Your task to perform on an android device: Clear the cart on walmart.com. Add lg ultragear to the cart on walmart.com, then select checkout. Image 0: 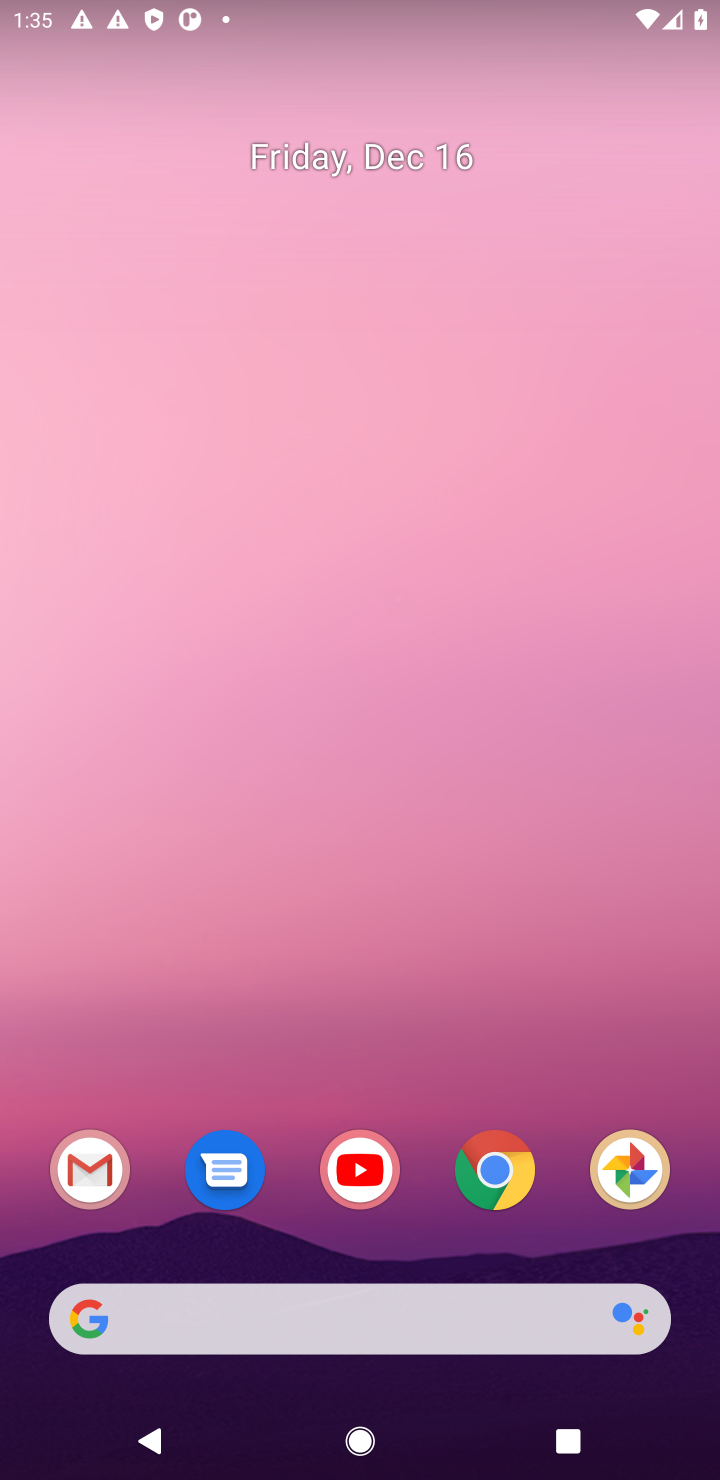
Step 0: click (507, 1173)
Your task to perform on an android device: Clear the cart on walmart.com. Add lg ultragear to the cart on walmart.com, then select checkout. Image 1: 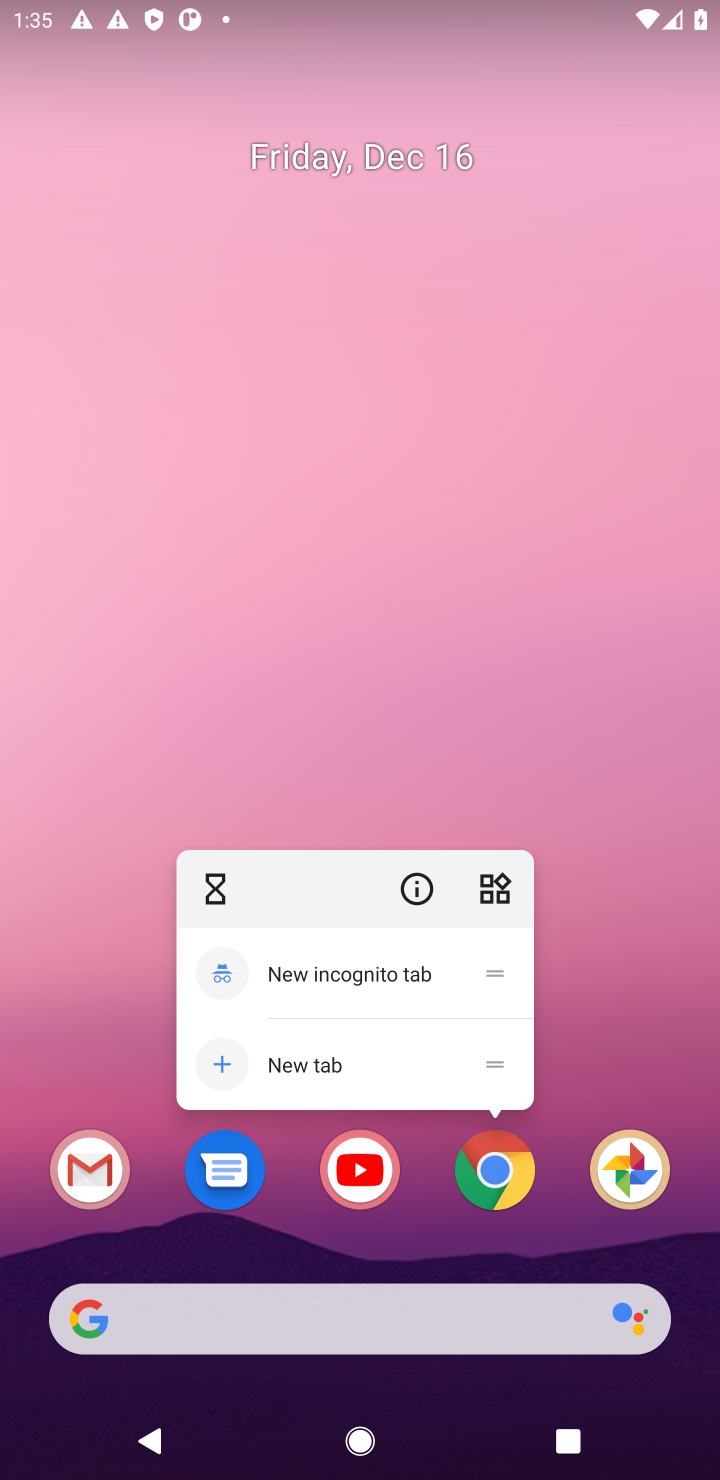
Step 1: click (507, 1173)
Your task to perform on an android device: Clear the cart on walmart.com. Add lg ultragear to the cart on walmart.com, then select checkout. Image 2: 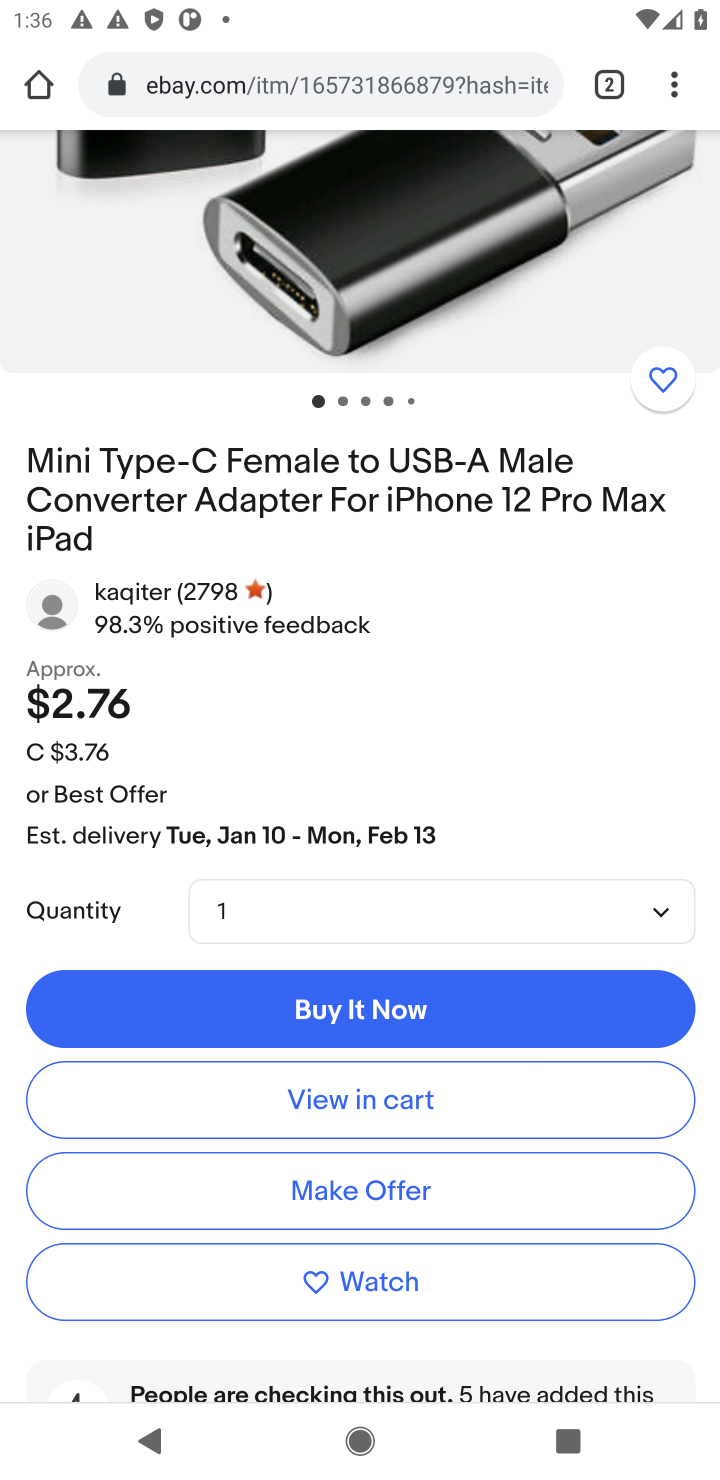
Step 2: click (283, 75)
Your task to perform on an android device: Clear the cart on walmart.com. Add lg ultragear to the cart on walmart.com, then select checkout. Image 3: 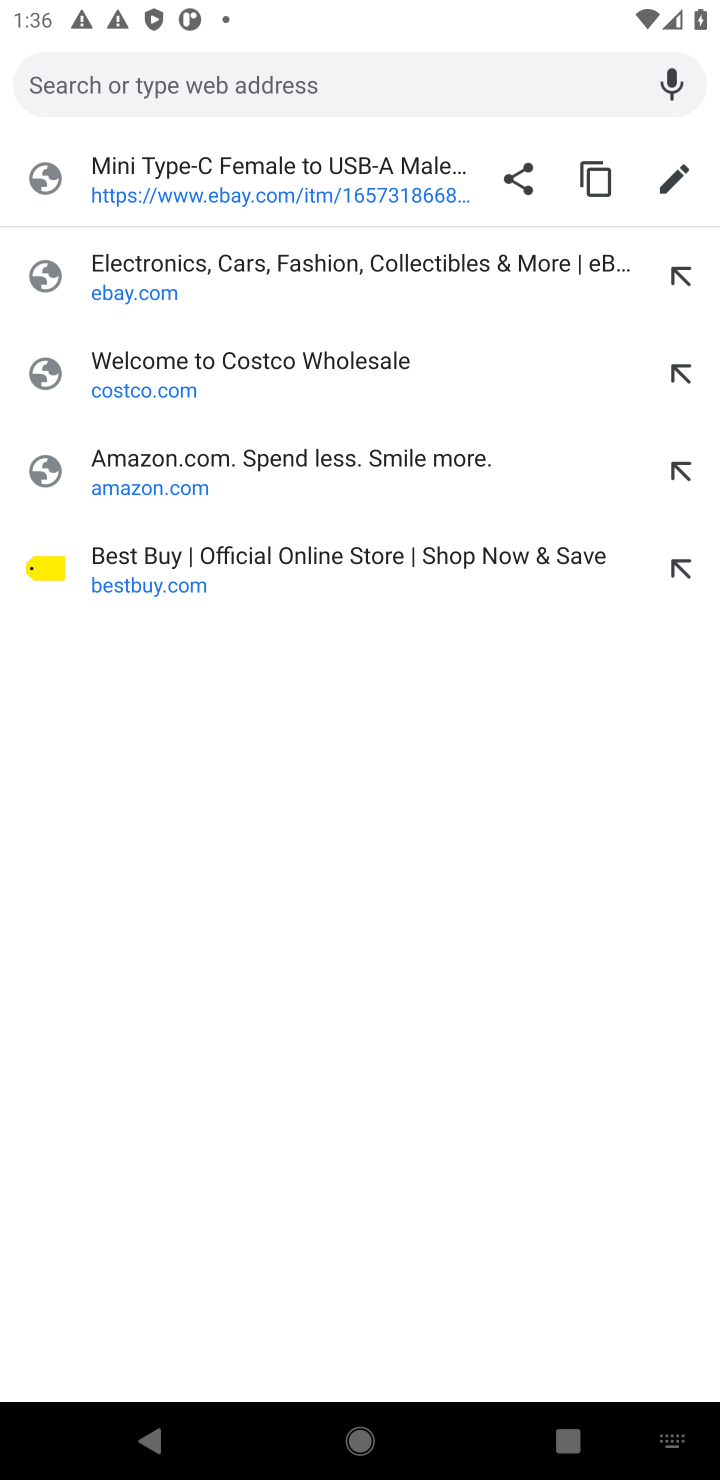
Step 3: type "walmart.com"
Your task to perform on an android device: Clear the cart on walmart.com. Add lg ultragear to the cart on walmart.com, then select checkout. Image 4: 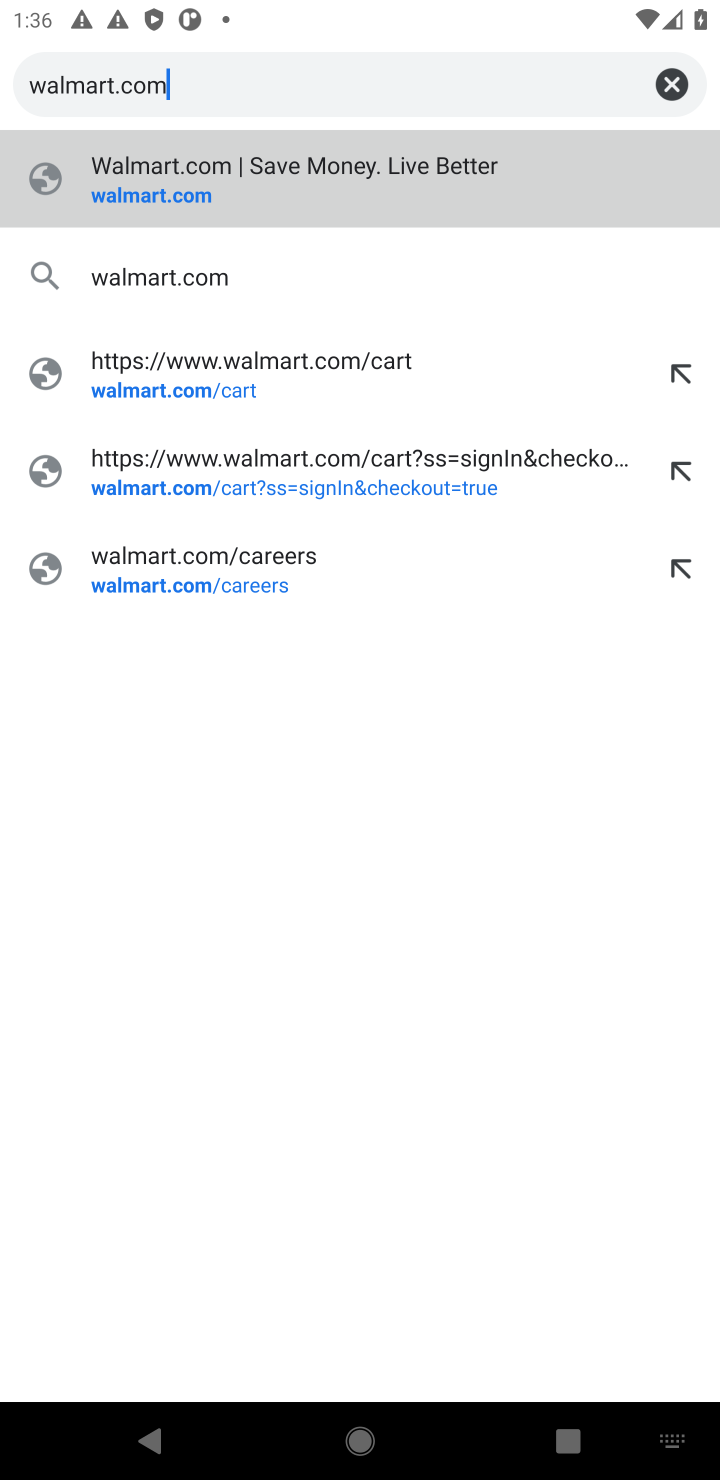
Step 4: click (140, 180)
Your task to perform on an android device: Clear the cart on walmart.com. Add lg ultragear to the cart on walmart.com, then select checkout. Image 5: 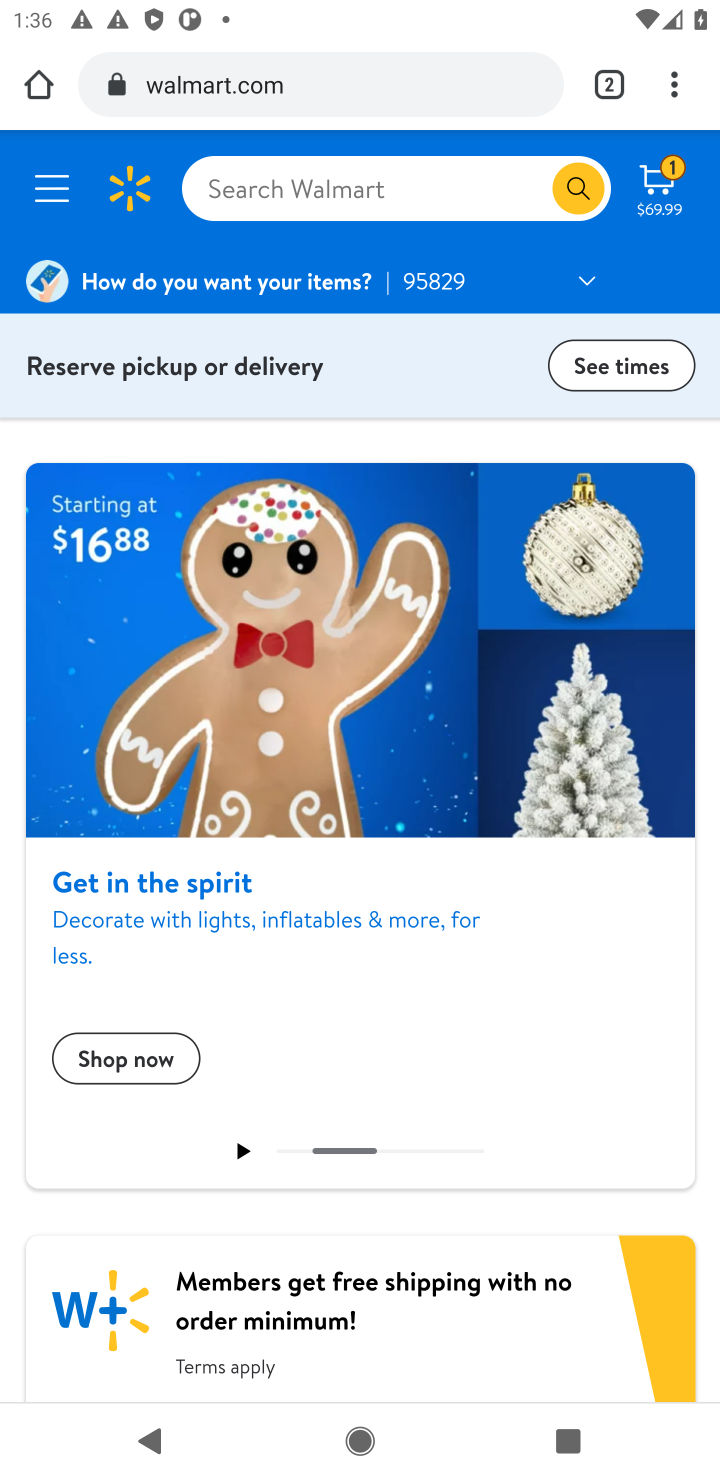
Step 5: click (651, 198)
Your task to perform on an android device: Clear the cart on walmart.com. Add lg ultragear to the cart on walmart.com, then select checkout. Image 6: 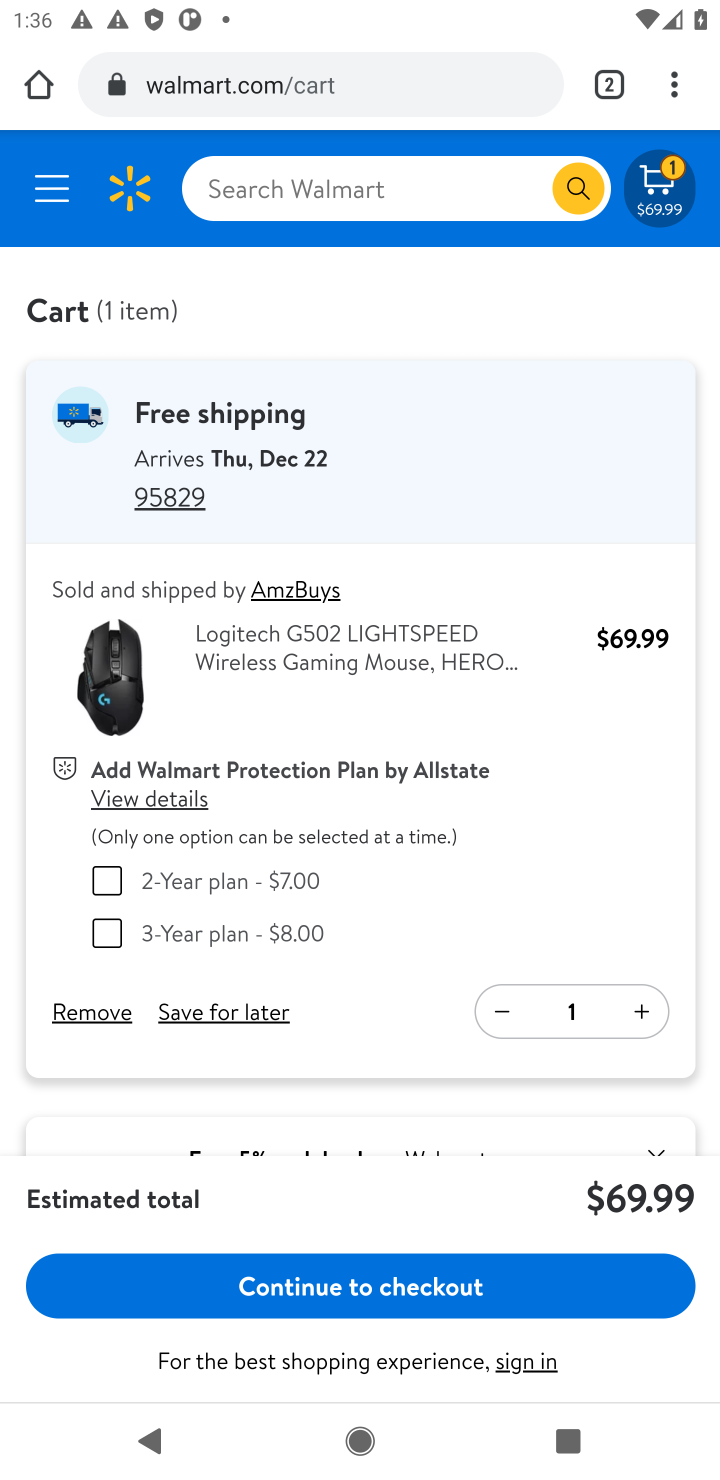
Step 6: click (79, 1014)
Your task to perform on an android device: Clear the cart on walmart.com. Add lg ultragear to the cart on walmart.com, then select checkout. Image 7: 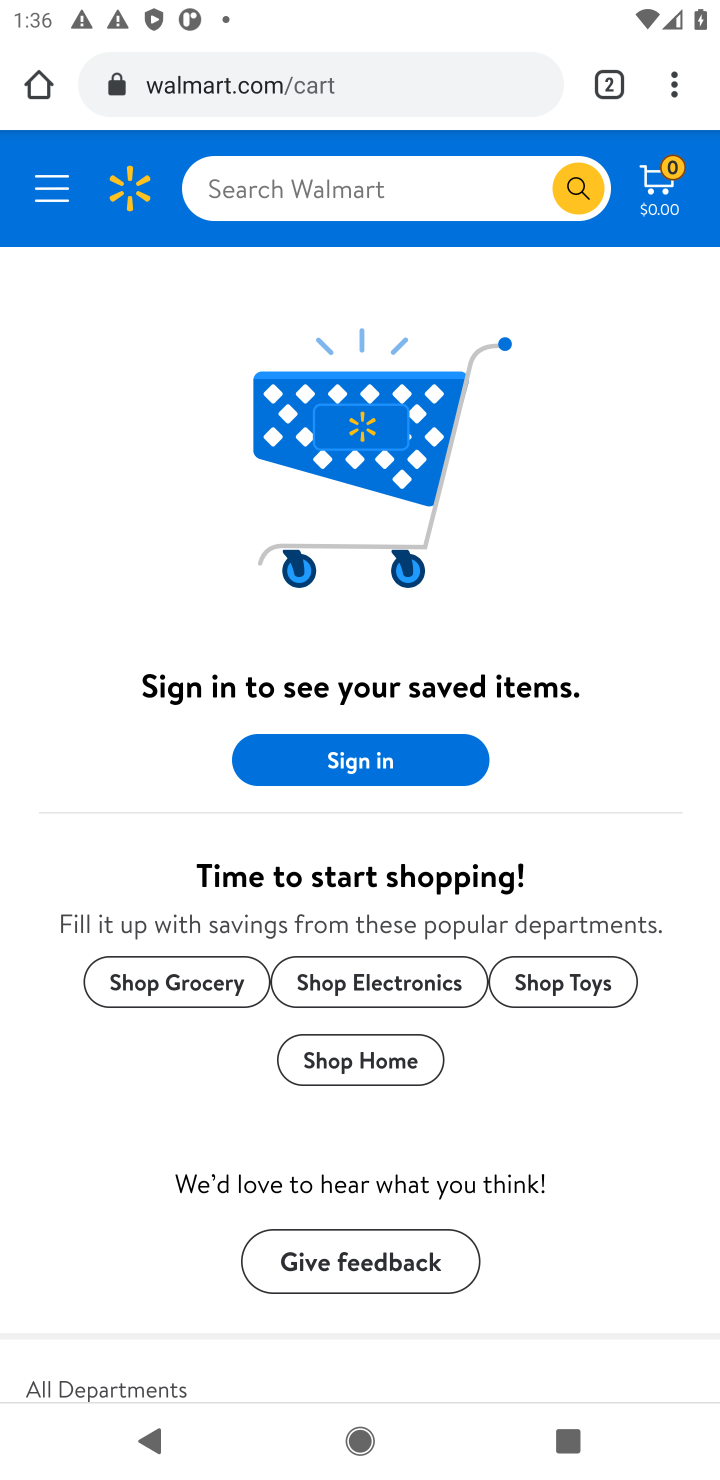
Step 7: click (222, 186)
Your task to perform on an android device: Clear the cart on walmart.com. Add lg ultragear to the cart on walmart.com, then select checkout. Image 8: 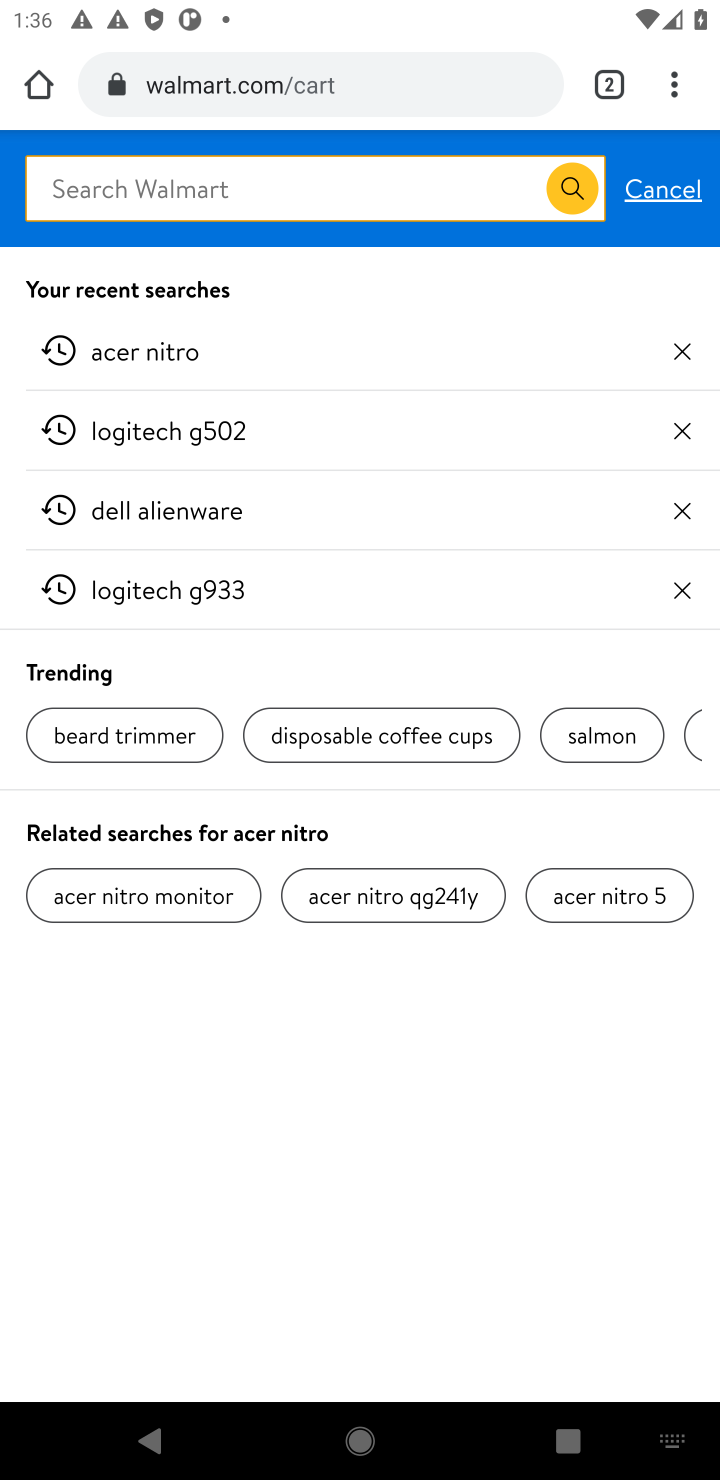
Step 8: type " lg ultragear "
Your task to perform on an android device: Clear the cart on walmart.com. Add lg ultragear to the cart on walmart.com, then select checkout. Image 9: 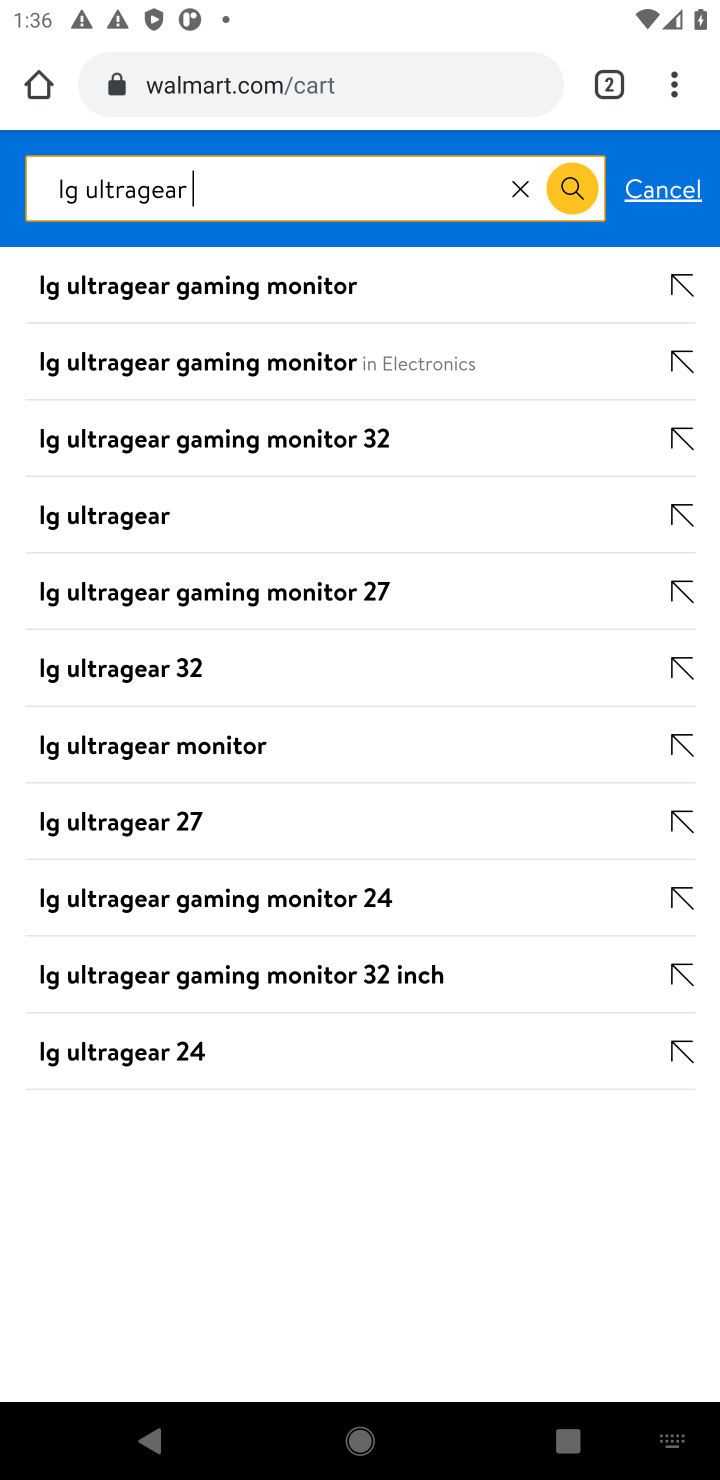
Step 9: click (79, 521)
Your task to perform on an android device: Clear the cart on walmart.com. Add lg ultragear to the cart on walmart.com, then select checkout. Image 10: 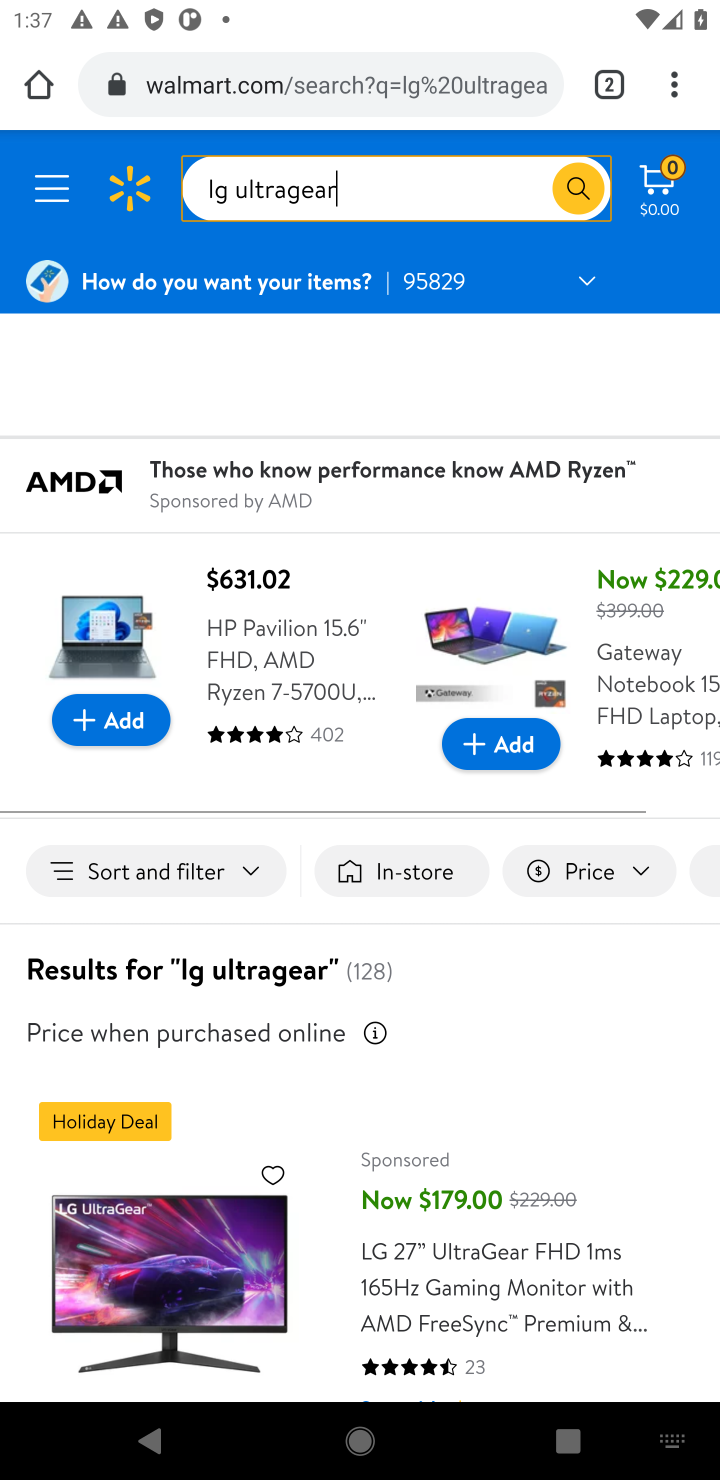
Step 10: drag from (449, 1015) to (401, 545)
Your task to perform on an android device: Clear the cart on walmart.com. Add lg ultragear to the cart on walmart.com, then select checkout. Image 11: 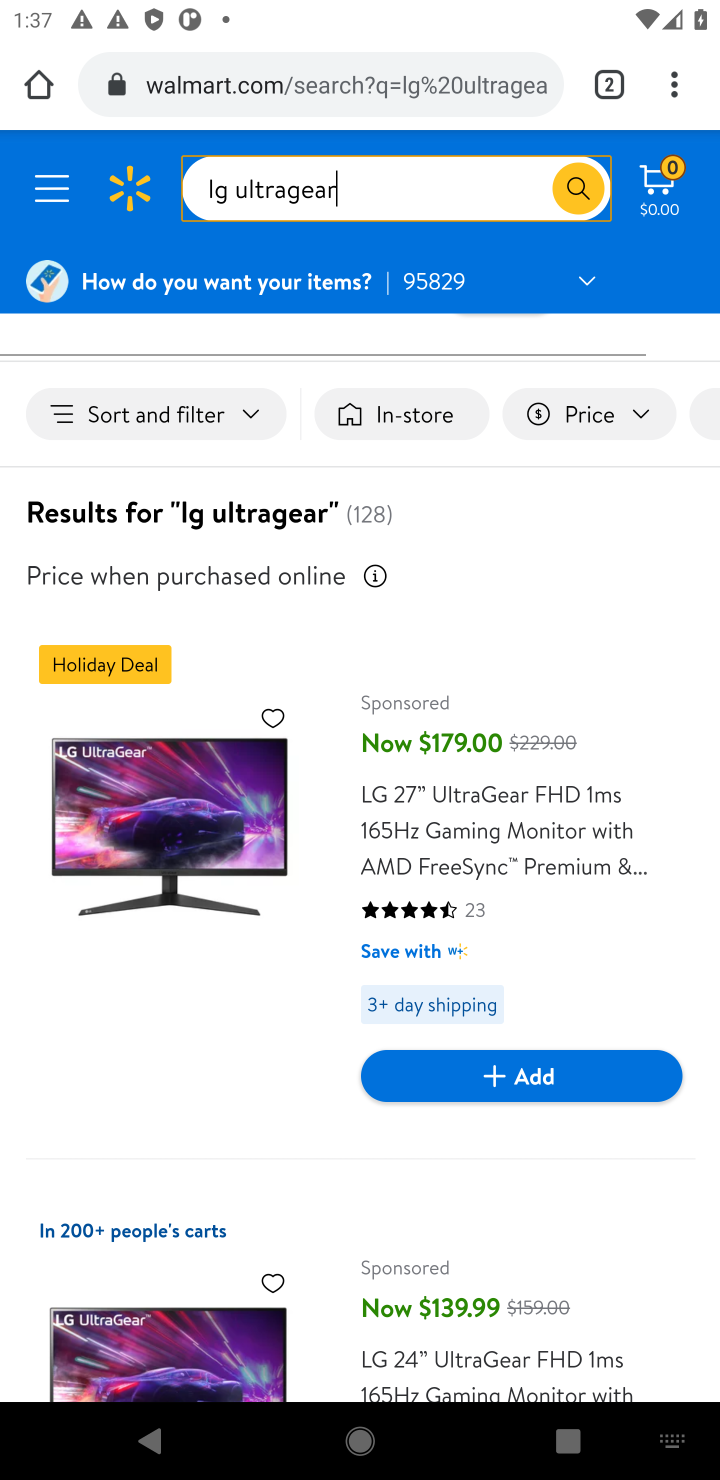
Step 11: click (488, 1085)
Your task to perform on an android device: Clear the cart on walmart.com. Add lg ultragear to the cart on walmart.com, then select checkout. Image 12: 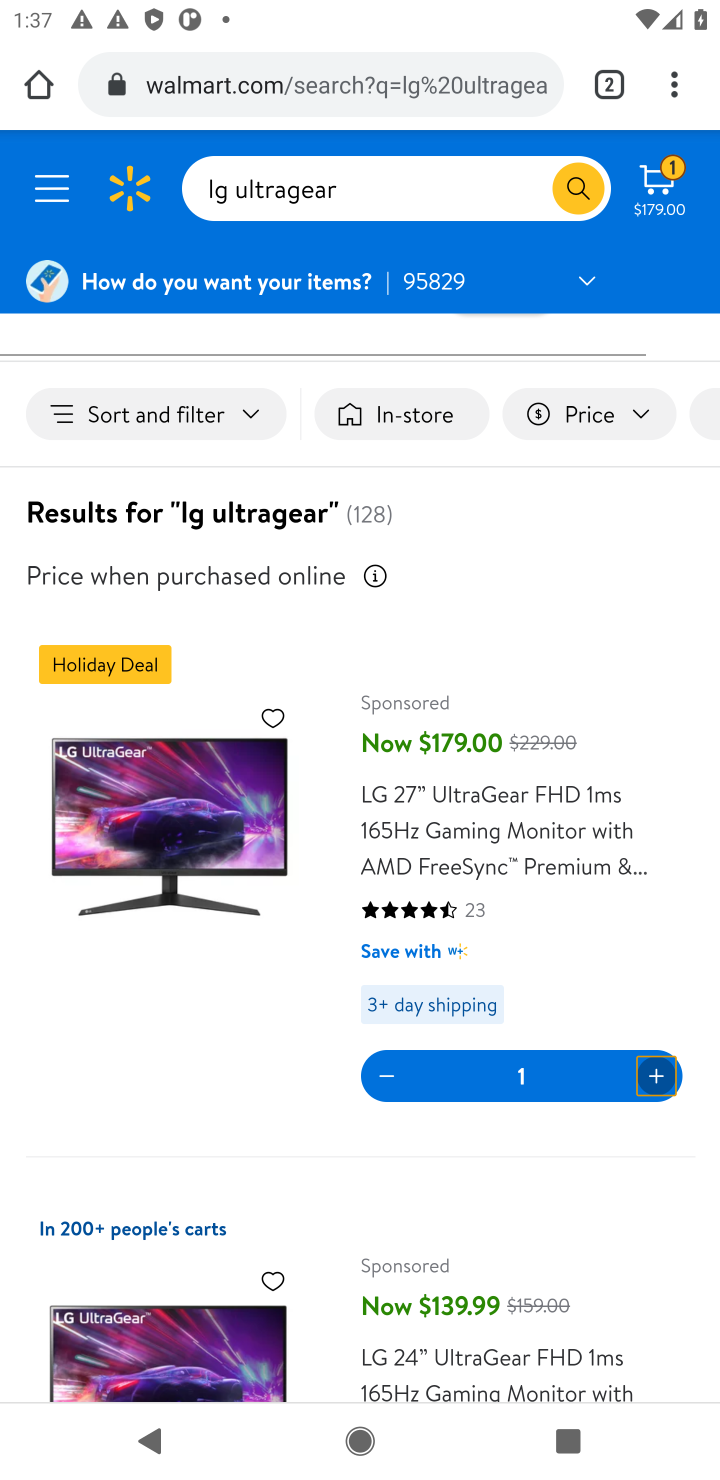
Step 12: click (657, 194)
Your task to perform on an android device: Clear the cart on walmart.com. Add lg ultragear to the cart on walmart.com, then select checkout. Image 13: 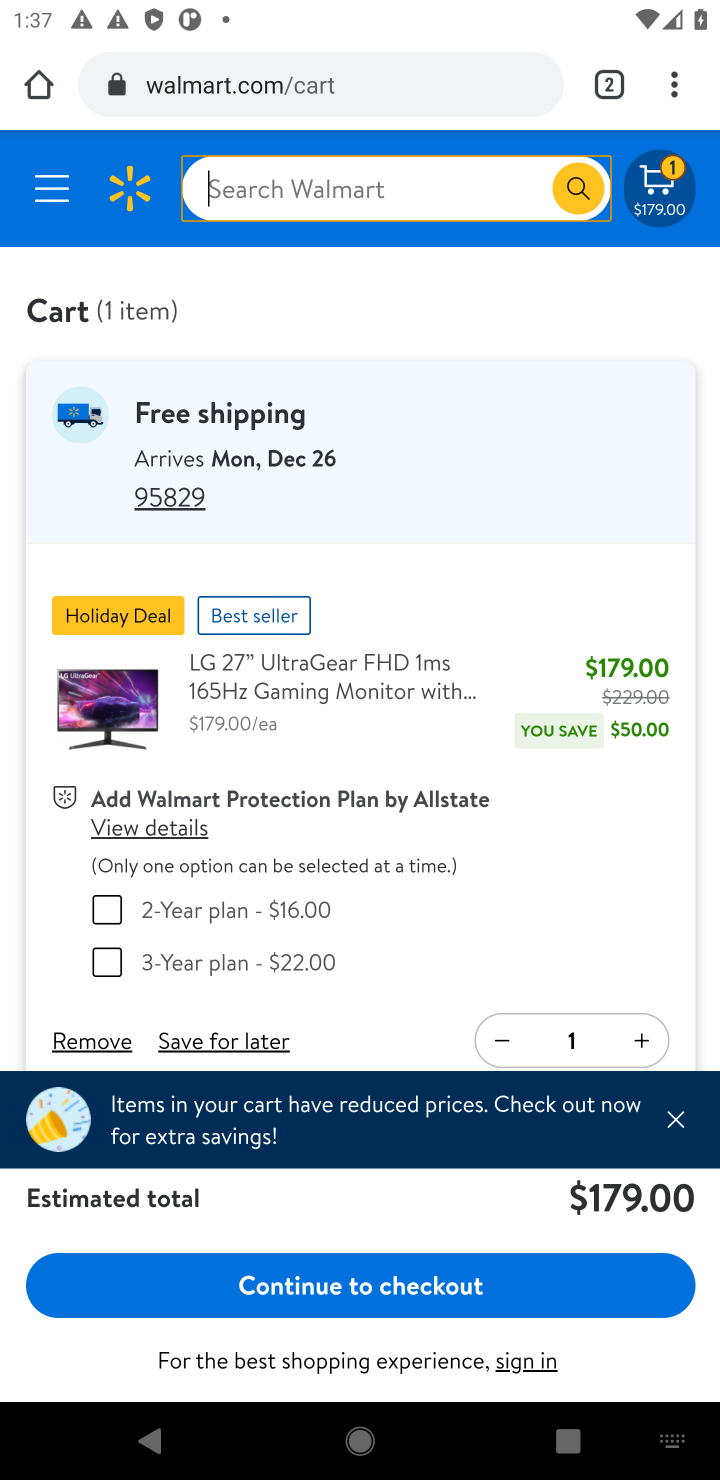
Step 13: click (358, 1280)
Your task to perform on an android device: Clear the cart on walmart.com. Add lg ultragear to the cart on walmart.com, then select checkout. Image 14: 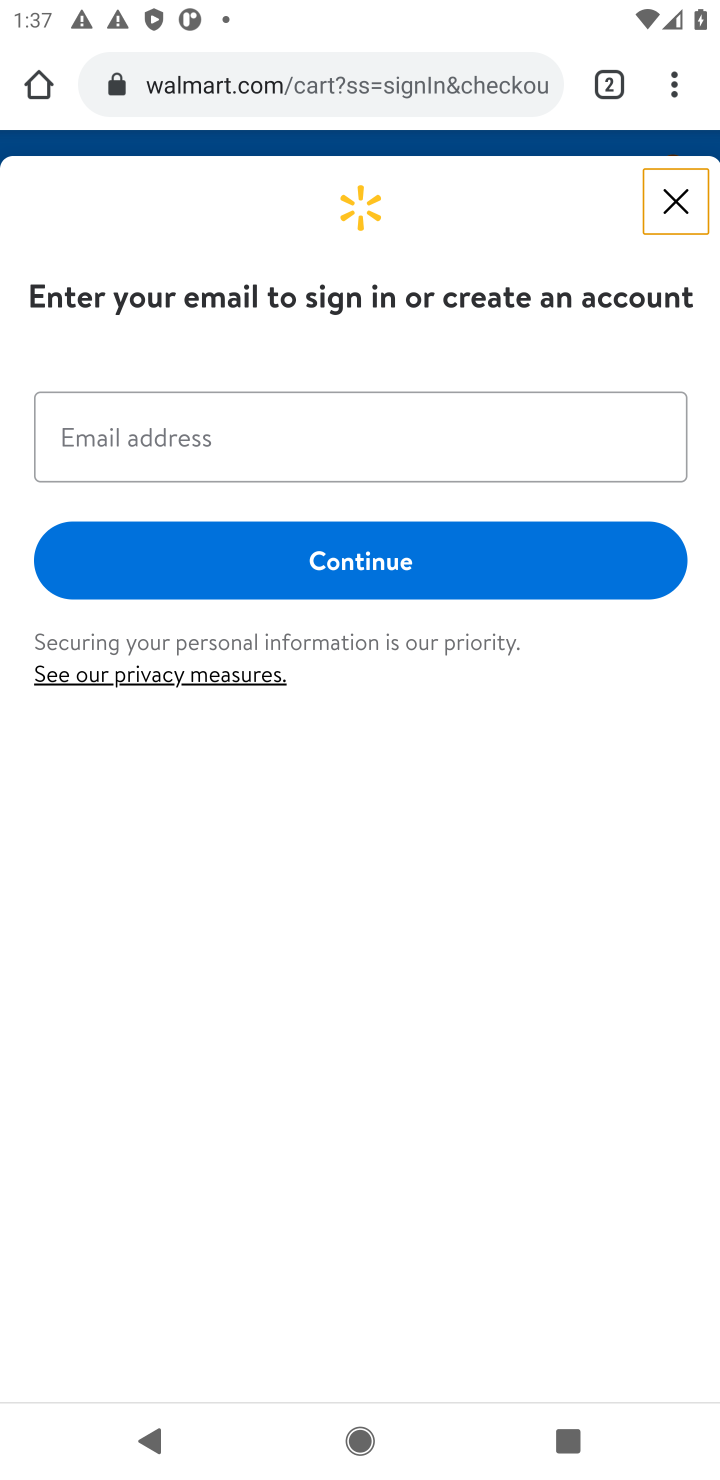
Step 14: task complete